Your task to perform on an android device: Open Amazon Image 0: 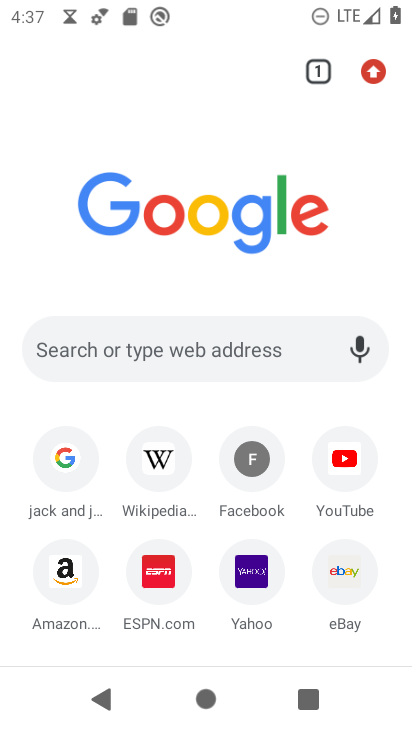
Step 0: click (66, 565)
Your task to perform on an android device: Open Amazon Image 1: 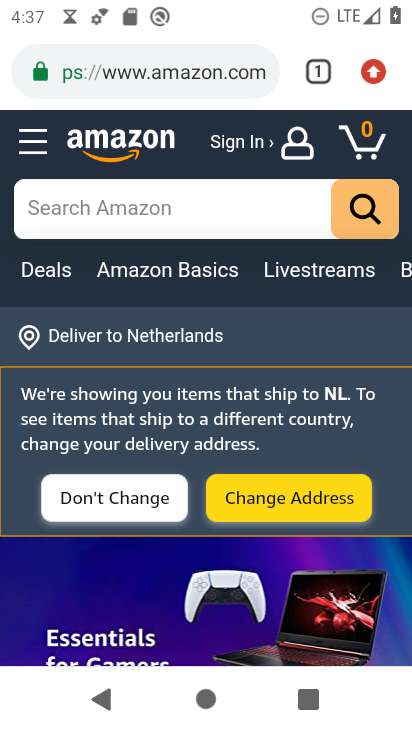
Step 1: task complete